Your task to perform on an android device: Go to location settings Image 0: 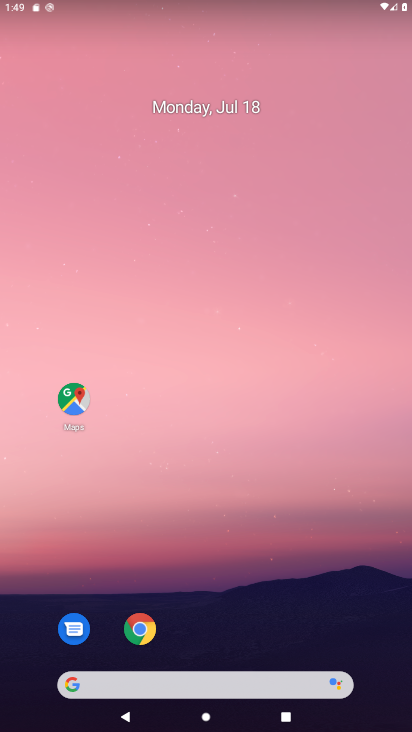
Step 0: drag from (184, 640) to (148, 120)
Your task to perform on an android device: Go to location settings Image 1: 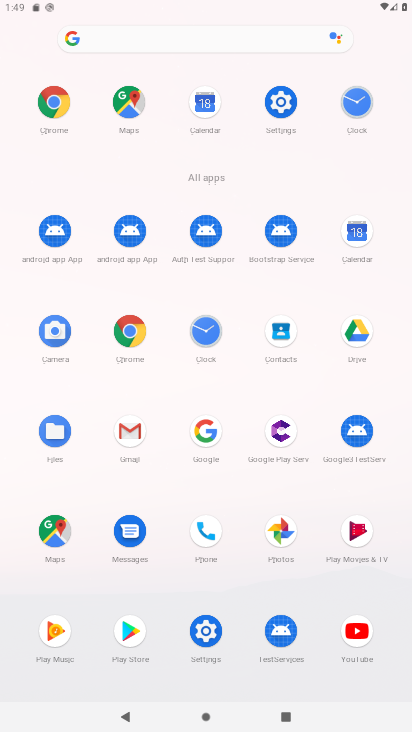
Step 1: click (282, 102)
Your task to perform on an android device: Go to location settings Image 2: 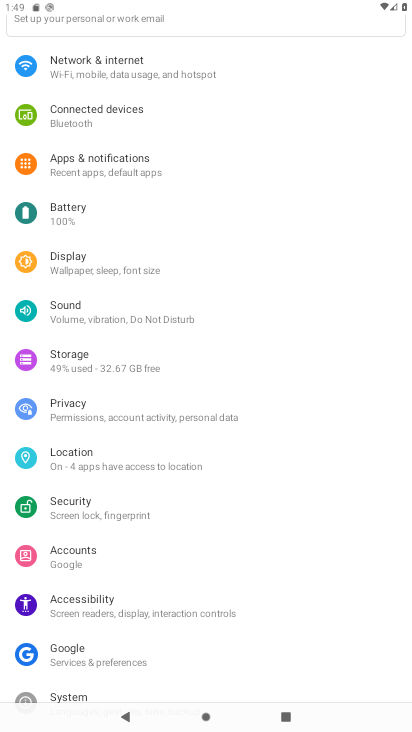
Step 2: click (116, 160)
Your task to perform on an android device: Go to location settings Image 3: 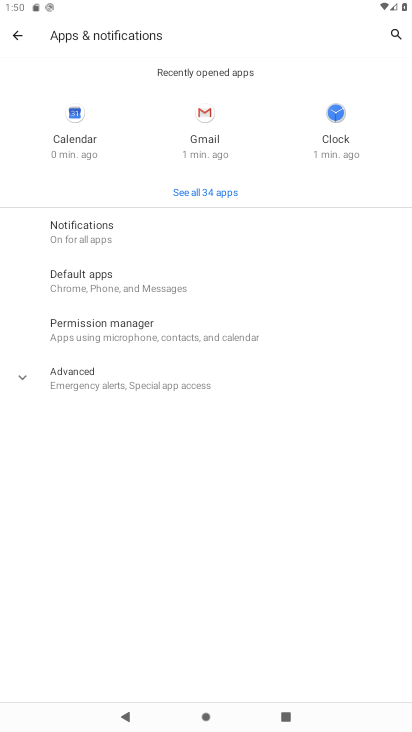
Step 3: task complete